Your task to perform on an android device: Open the web browser Image 0: 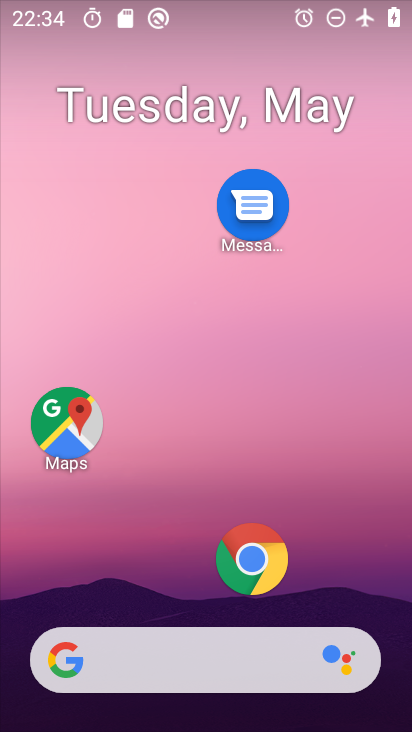
Step 0: click (231, 556)
Your task to perform on an android device: Open the web browser Image 1: 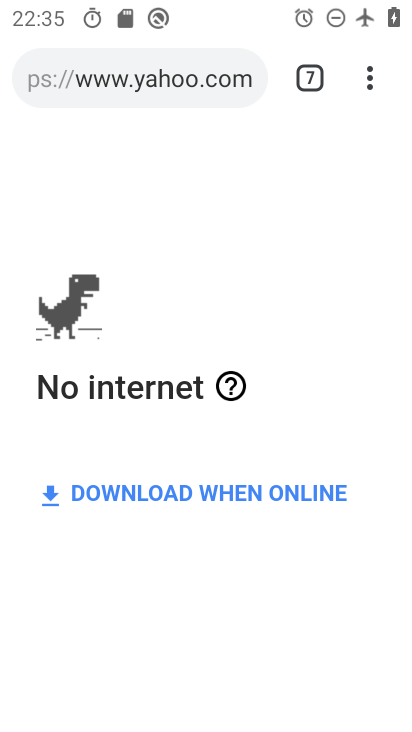
Step 1: task complete